Your task to perform on an android device: Open accessibility settings Image 0: 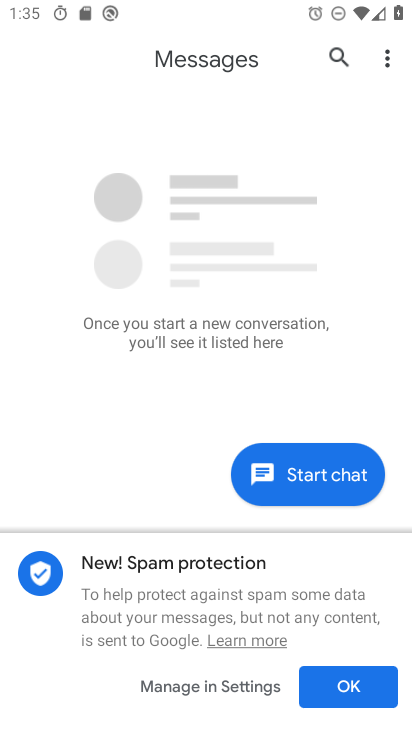
Step 0: press home button
Your task to perform on an android device: Open accessibility settings Image 1: 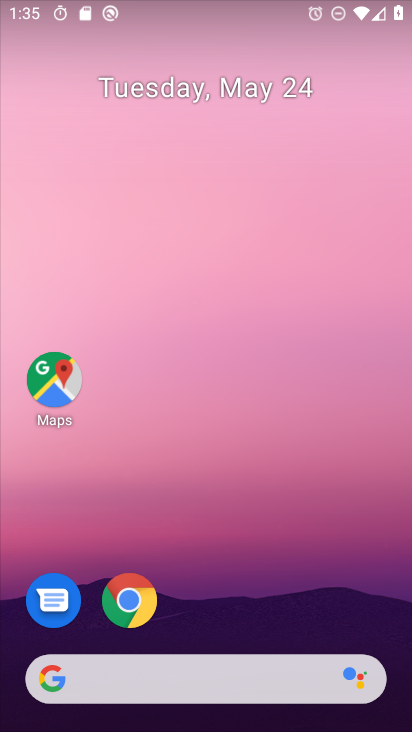
Step 1: drag from (224, 594) to (246, 177)
Your task to perform on an android device: Open accessibility settings Image 2: 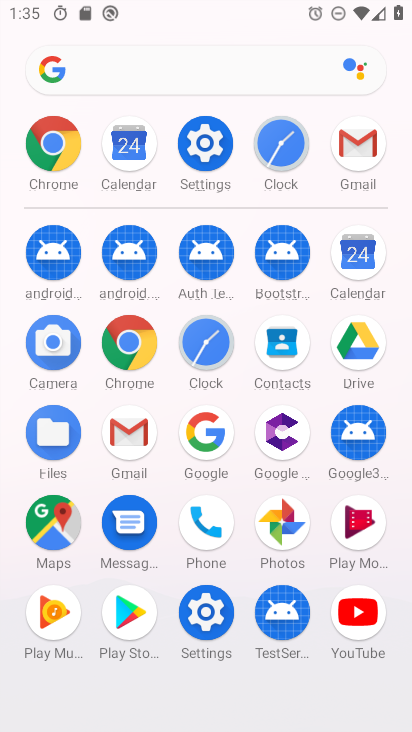
Step 2: click (206, 143)
Your task to perform on an android device: Open accessibility settings Image 3: 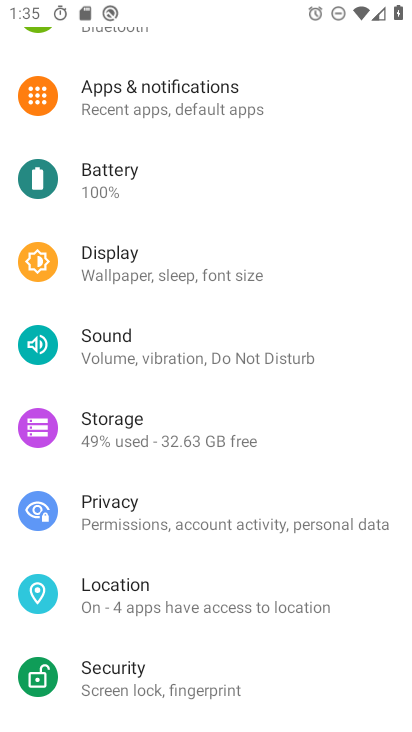
Step 3: drag from (203, 643) to (268, 232)
Your task to perform on an android device: Open accessibility settings Image 4: 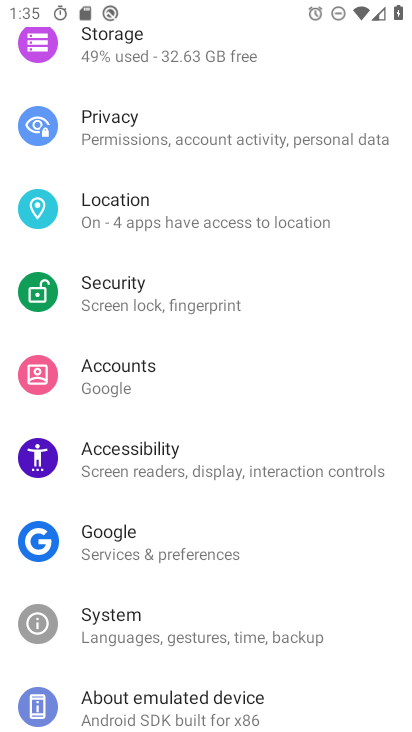
Step 4: click (183, 465)
Your task to perform on an android device: Open accessibility settings Image 5: 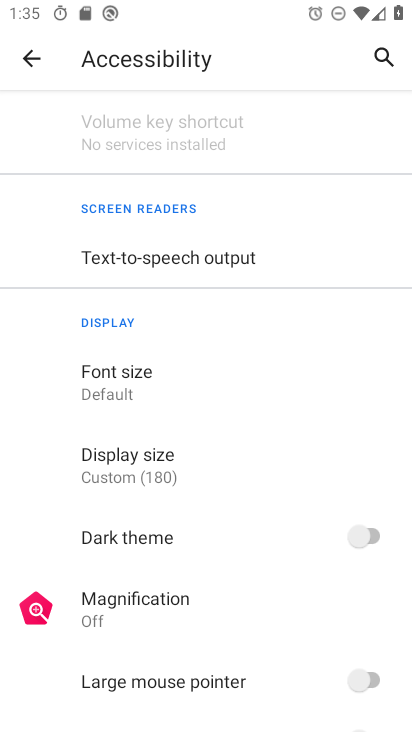
Step 5: task complete